Your task to perform on an android device: turn off priority inbox in the gmail app Image 0: 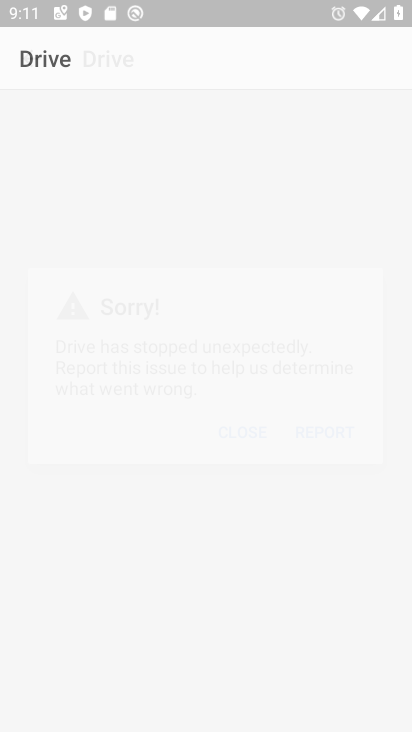
Step 0: drag from (402, 614) to (310, 66)
Your task to perform on an android device: turn off priority inbox in the gmail app Image 1: 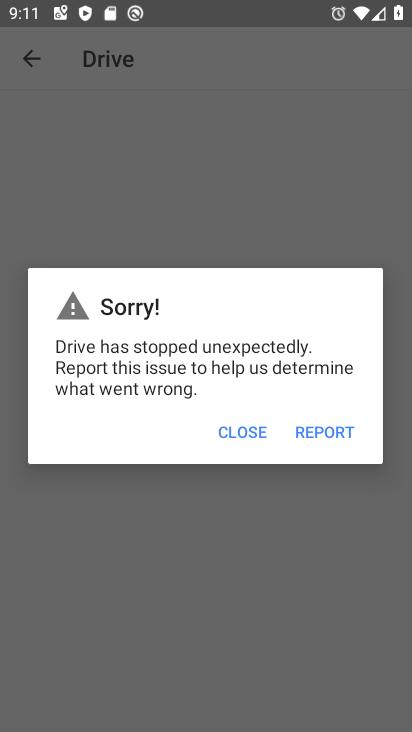
Step 1: press home button
Your task to perform on an android device: turn off priority inbox in the gmail app Image 2: 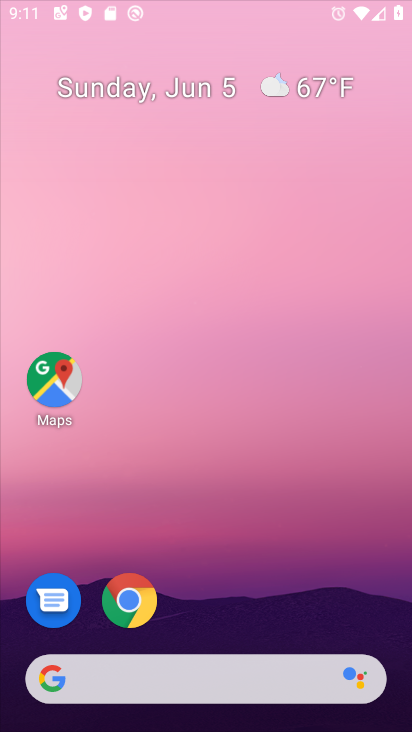
Step 2: drag from (409, 625) to (293, 34)
Your task to perform on an android device: turn off priority inbox in the gmail app Image 3: 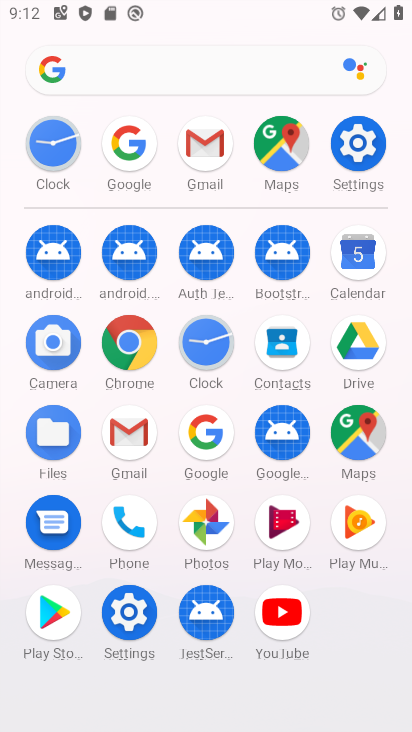
Step 3: click (143, 440)
Your task to perform on an android device: turn off priority inbox in the gmail app Image 4: 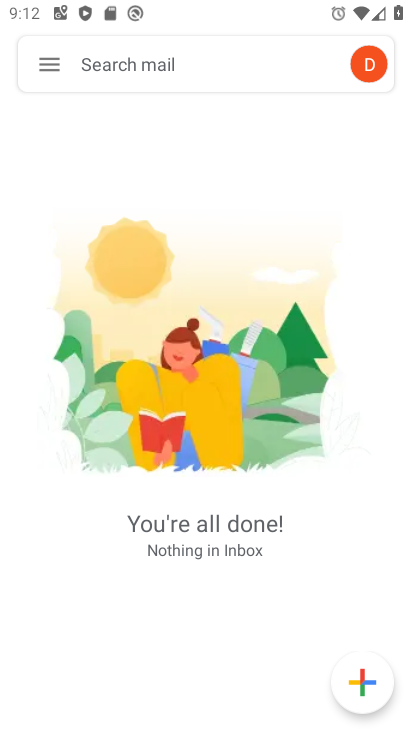
Step 4: click (40, 58)
Your task to perform on an android device: turn off priority inbox in the gmail app Image 5: 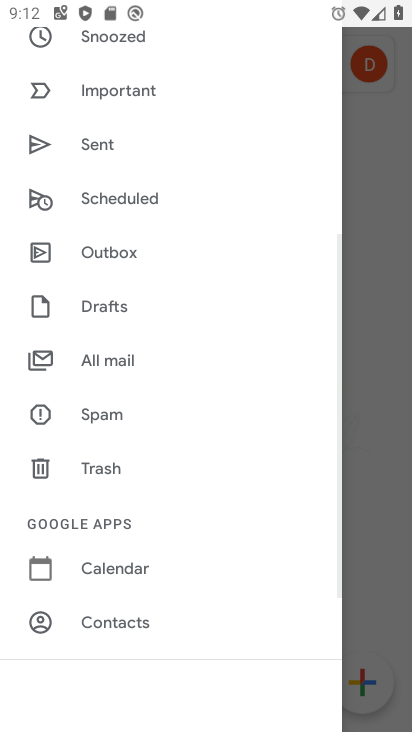
Step 5: drag from (113, 589) to (190, 75)
Your task to perform on an android device: turn off priority inbox in the gmail app Image 6: 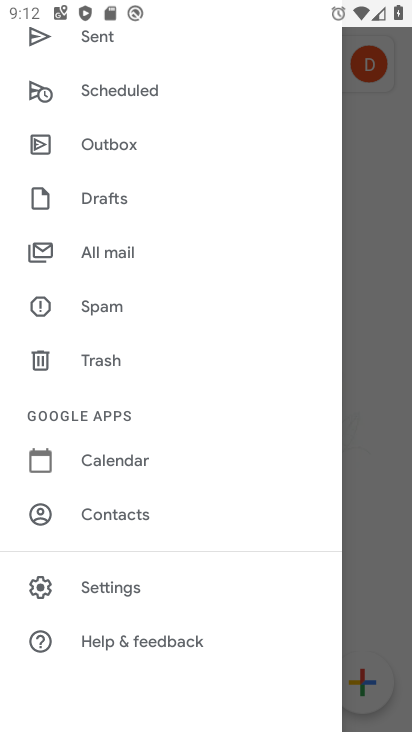
Step 6: click (136, 596)
Your task to perform on an android device: turn off priority inbox in the gmail app Image 7: 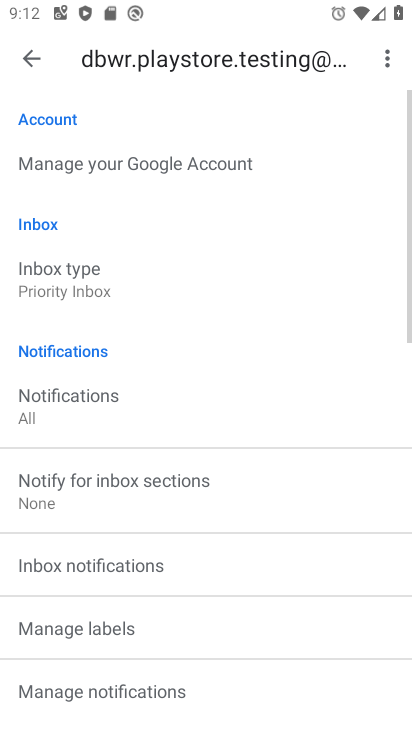
Step 7: click (125, 277)
Your task to perform on an android device: turn off priority inbox in the gmail app Image 8: 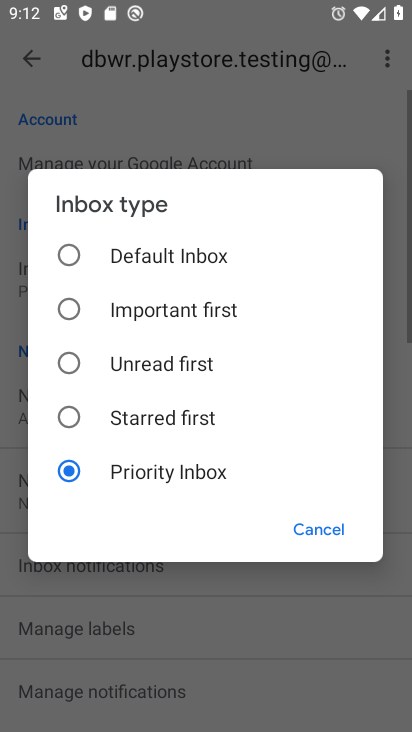
Step 8: click (73, 263)
Your task to perform on an android device: turn off priority inbox in the gmail app Image 9: 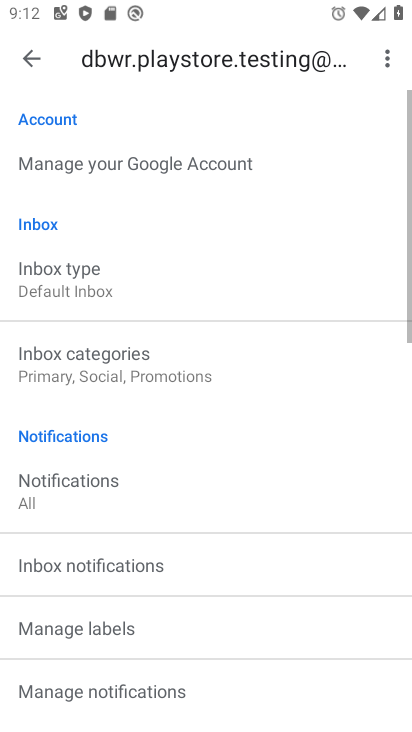
Step 9: task complete